Your task to perform on an android device: choose inbox layout in the gmail app Image 0: 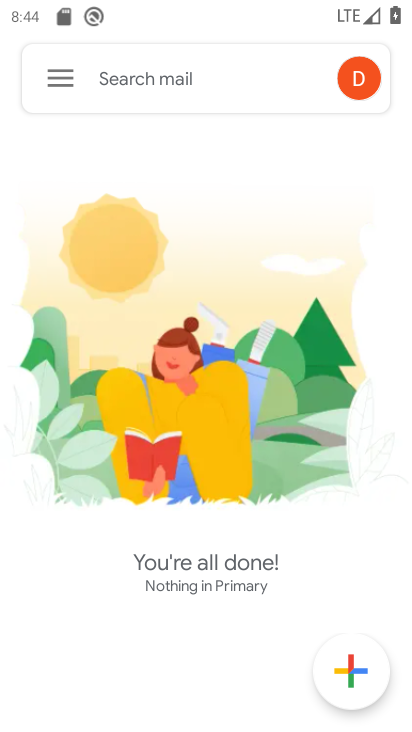
Step 0: click (59, 75)
Your task to perform on an android device: choose inbox layout in the gmail app Image 1: 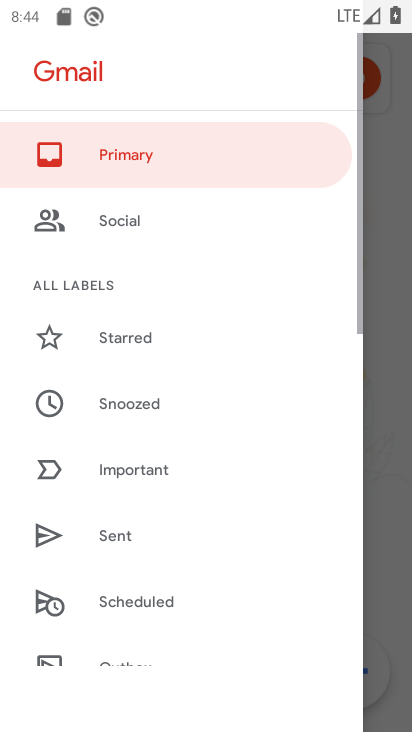
Step 1: drag from (137, 181) to (297, 473)
Your task to perform on an android device: choose inbox layout in the gmail app Image 2: 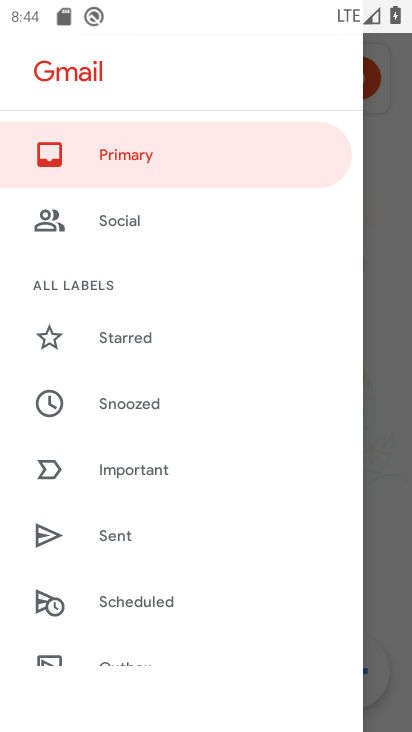
Step 2: click (156, 151)
Your task to perform on an android device: choose inbox layout in the gmail app Image 3: 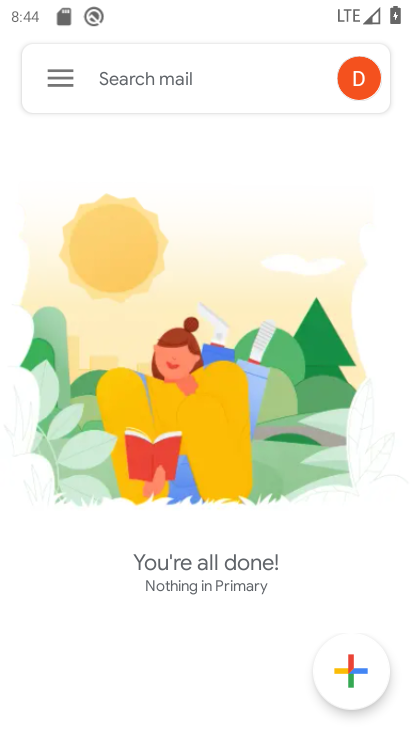
Step 3: task complete